Your task to perform on an android device: turn on notifications settings in the gmail app Image 0: 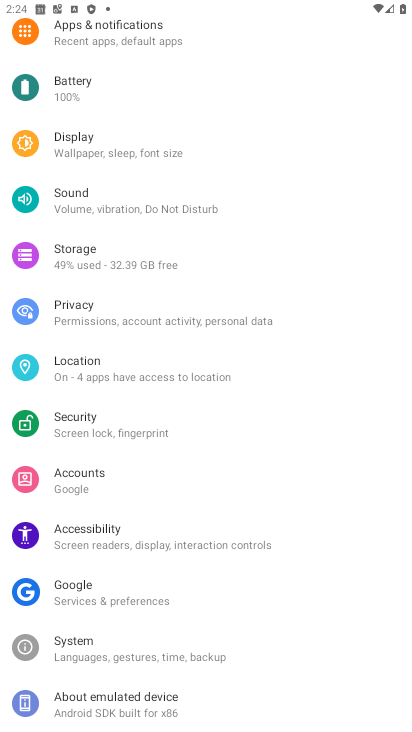
Step 0: drag from (197, 653) to (306, 239)
Your task to perform on an android device: turn on notifications settings in the gmail app Image 1: 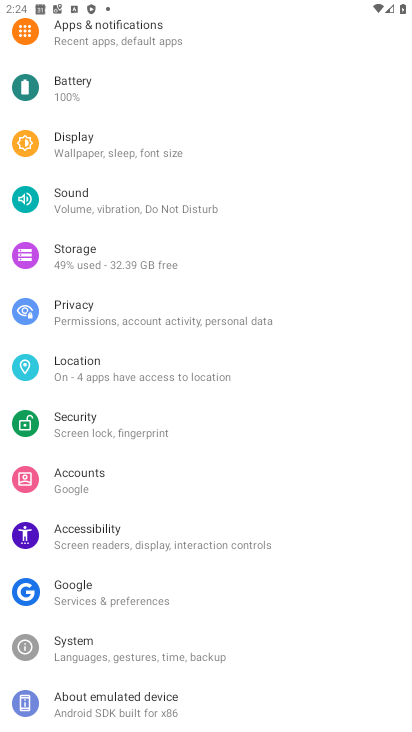
Step 1: press home button
Your task to perform on an android device: turn on notifications settings in the gmail app Image 2: 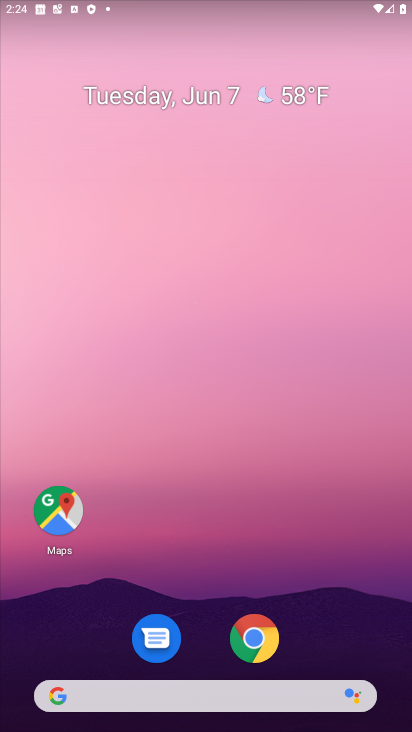
Step 2: drag from (213, 610) to (273, 194)
Your task to perform on an android device: turn on notifications settings in the gmail app Image 3: 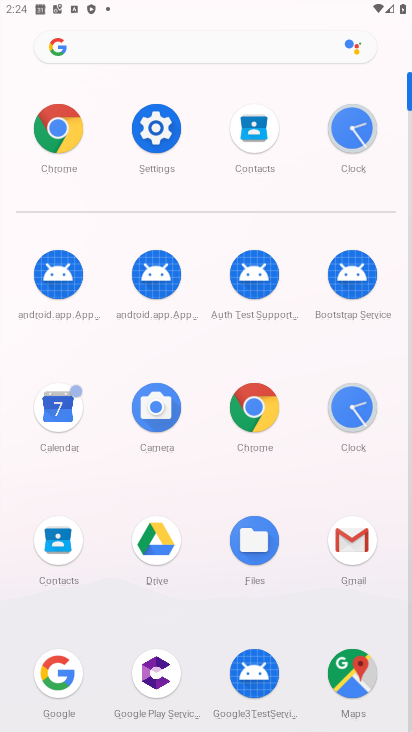
Step 3: click (362, 554)
Your task to perform on an android device: turn on notifications settings in the gmail app Image 4: 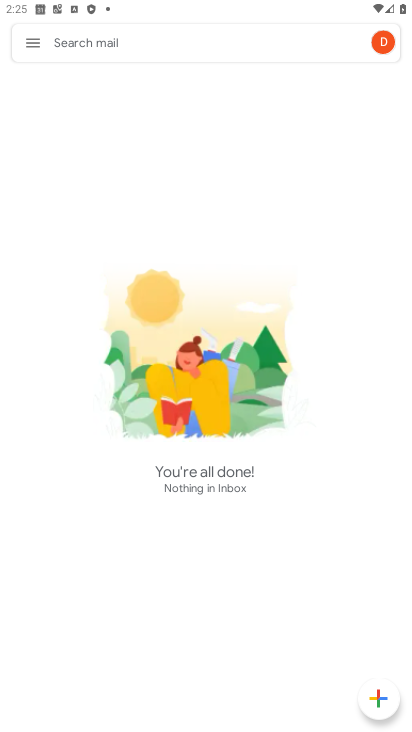
Step 4: click (39, 40)
Your task to perform on an android device: turn on notifications settings in the gmail app Image 5: 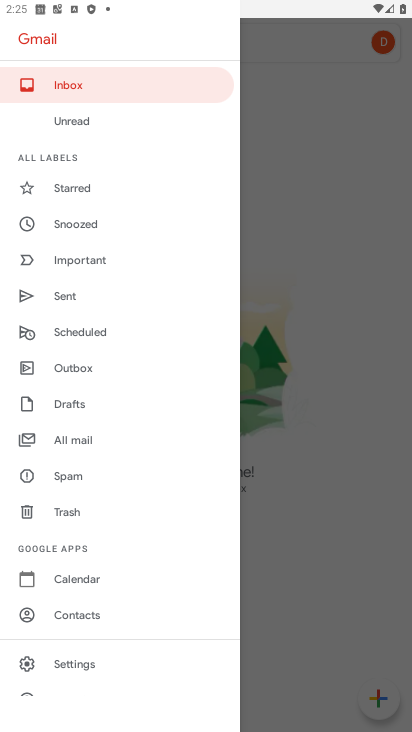
Step 5: click (75, 660)
Your task to perform on an android device: turn on notifications settings in the gmail app Image 6: 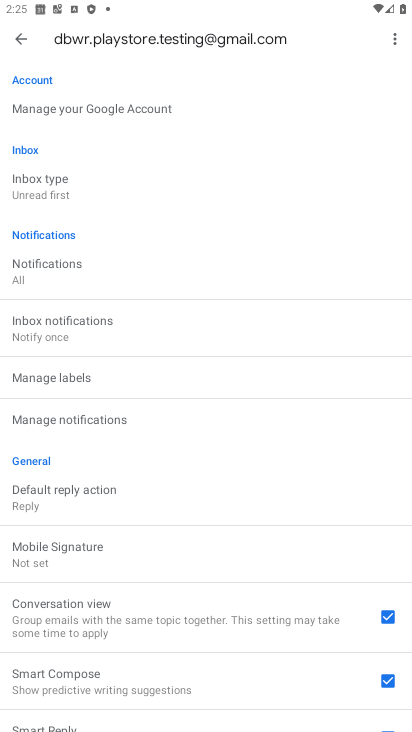
Step 6: click (123, 431)
Your task to perform on an android device: turn on notifications settings in the gmail app Image 7: 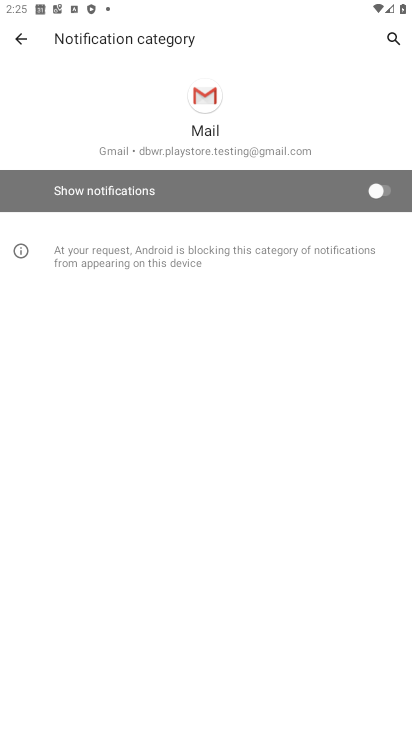
Step 7: click (386, 183)
Your task to perform on an android device: turn on notifications settings in the gmail app Image 8: 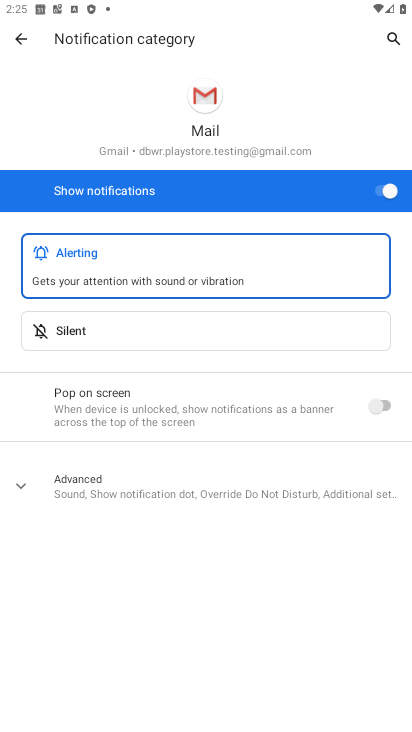
Step 8: task complete